Your task to perform on an android device: Show me recent news Image 0: 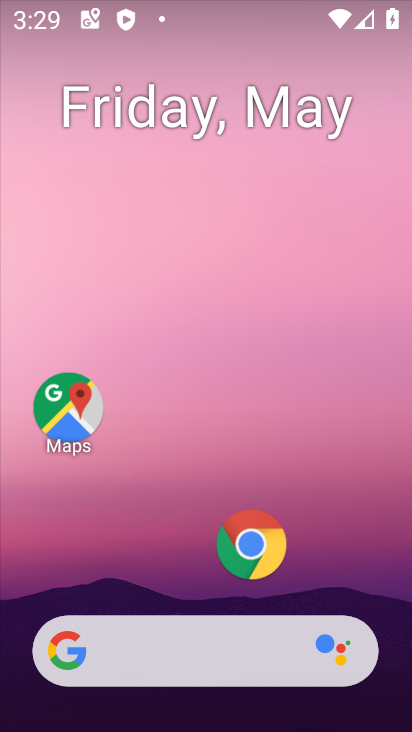
Step 0: drag from (195, 592) to (195, 187)
Your task to perform on an android device: Show me recent news Image 1: 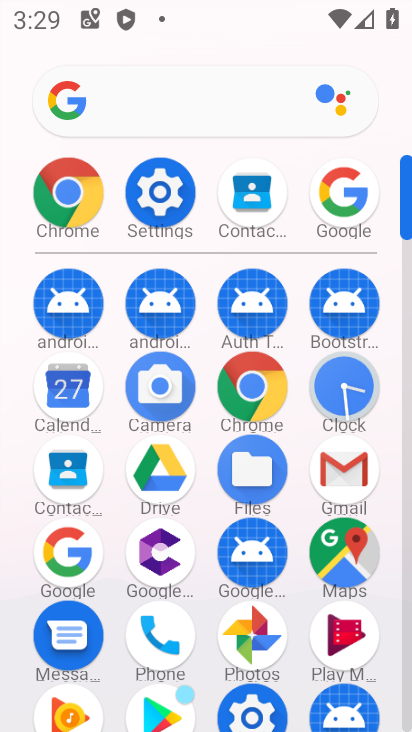
Step 1: click (327, 212)
Your task to perform on an android device: Show me recent news Image 2: 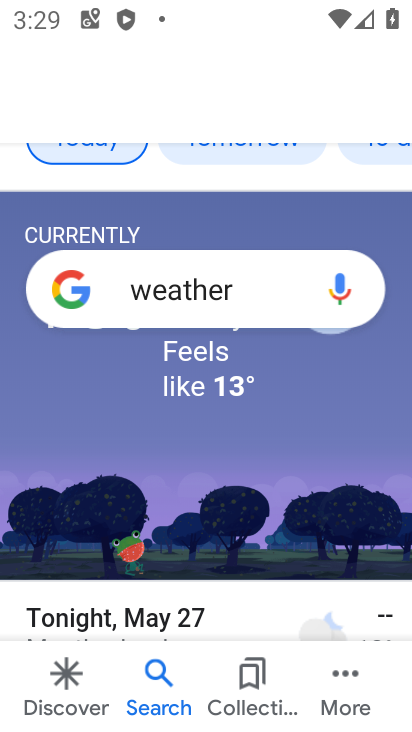
Step 2: click (240, 286)
Your task to perform on an android device: Show me recent news Image 3: 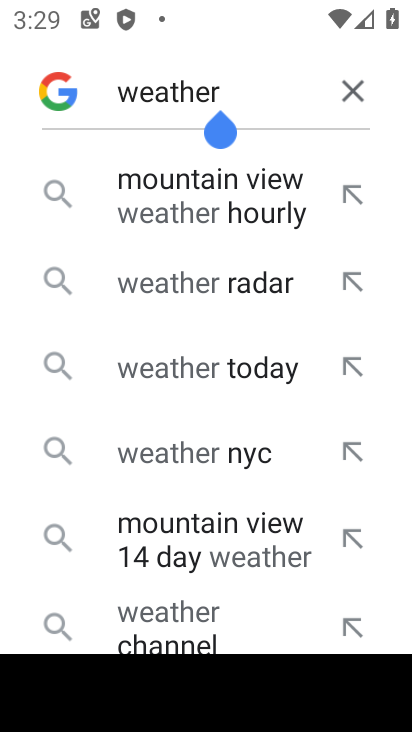
Step 3: click (348, 86)
Your task to perform on an android device: Show me recent news Image 4: 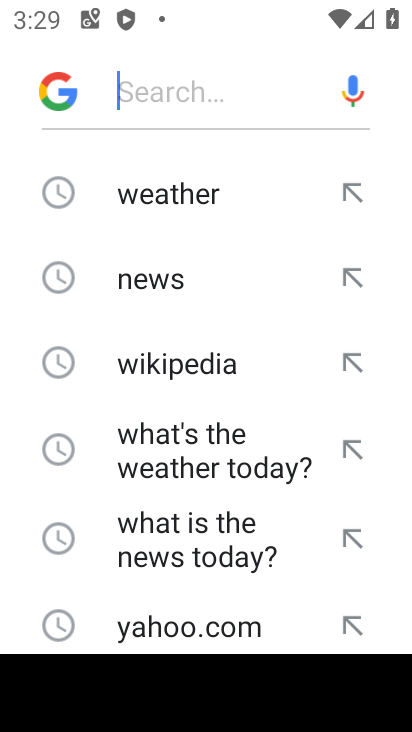
Step 4: click (207, 99)
Your task to perform on an android device: Show me recent news Image 5: 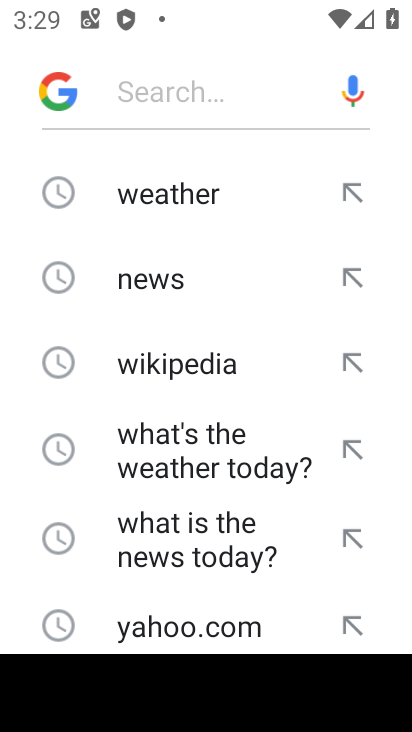
Step 5: click (185, 276)
Your task to perform on an android device: Show me recent news Image 6: 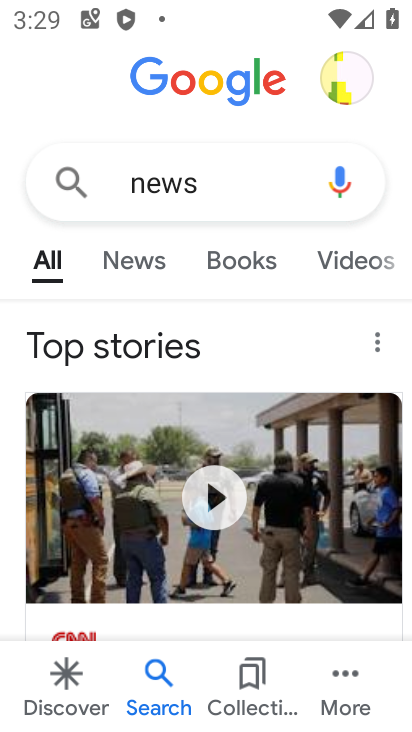
Step 6: drag from (244, 548) to (274, 416)
Your task to perform on an android device: Show me recent news Image 7: 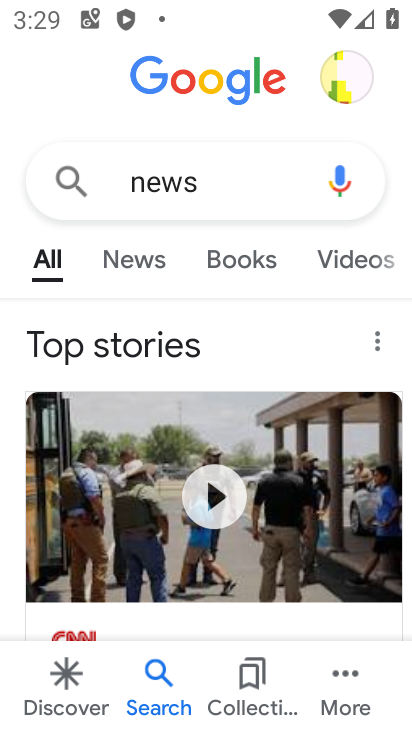
Step 7: click (114, 255)
Your task to perform on an android device: Show me recent news Image 8: 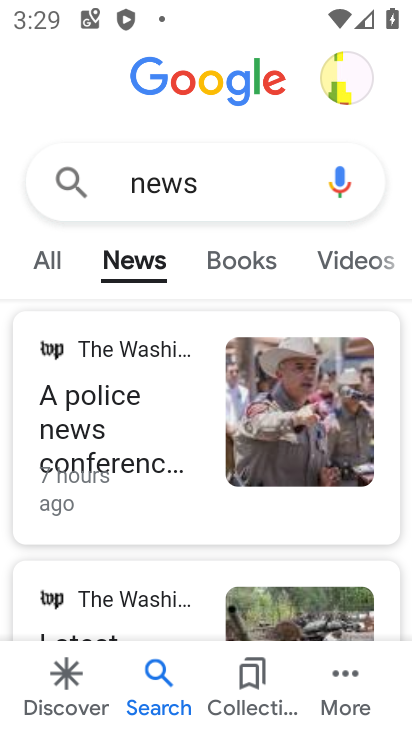
Step 8: task complete